Your task to perform on an android device: manage bookmarks in the chrome app Image 0: 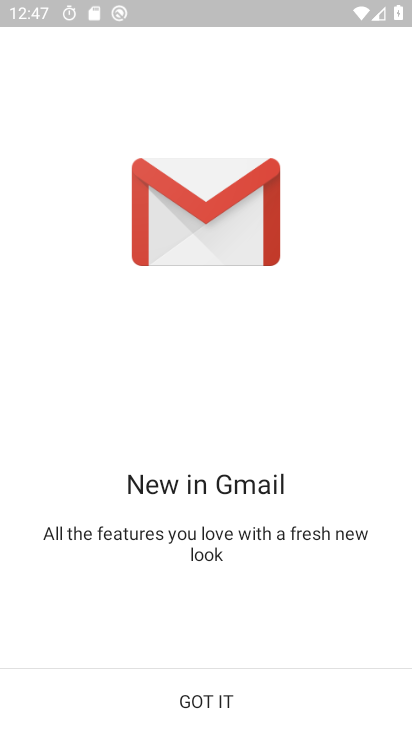
Step 0: press back button
Your task to perform on an android device: manage bookmarks in the chrome app Image 1: 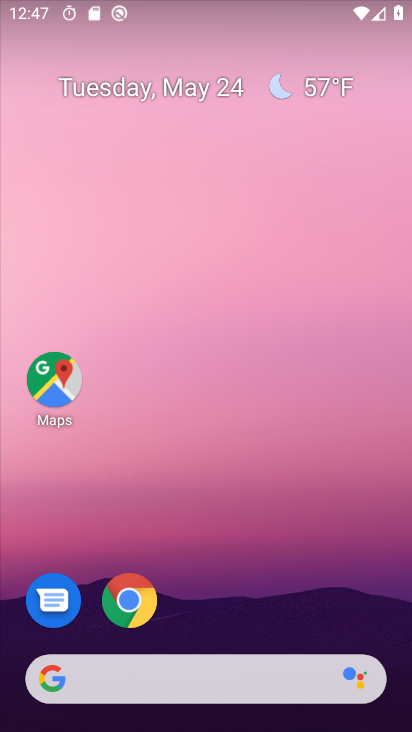
Step 1: click (142, 605)
Your task to perform on an android device: manage bookmarks in the chrome app Image 2: 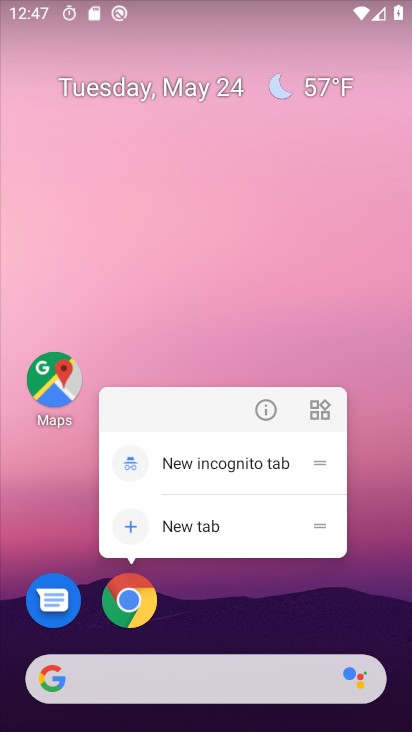
Step 2: click (129, 598)
Your task to perform on an android device: manage bookmarks in the chrome app Image 3: 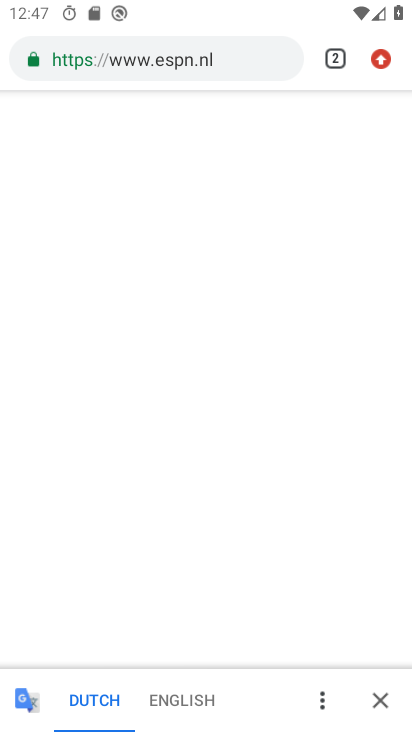
Step 3: task complete